Your task to perform on an android device: Go to calendar. Show me events next week Image 0: 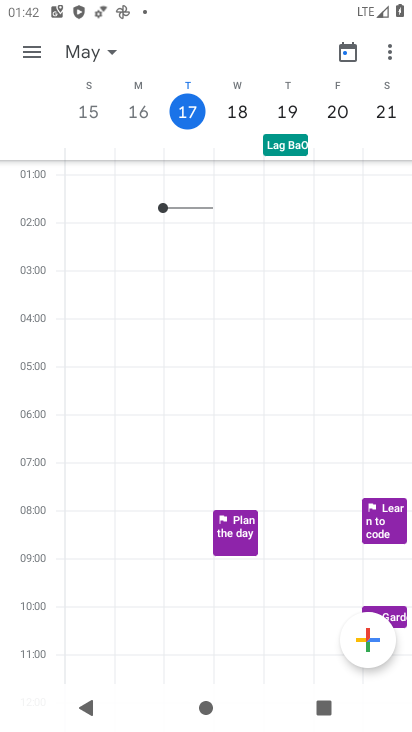
Step 0: click (34, 52)
Your task to perform on an android device: Go to calendar. Show me events next week Image 1: 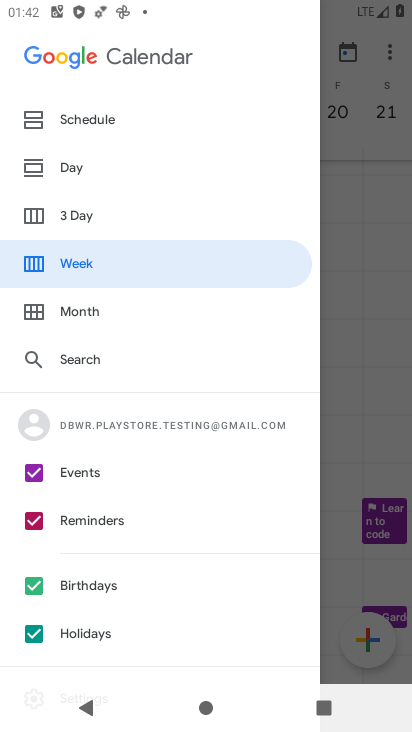
Step 1: click (99, 124)
Your task to perform on an android device: Go to calendar. Show me events next week Image 2: 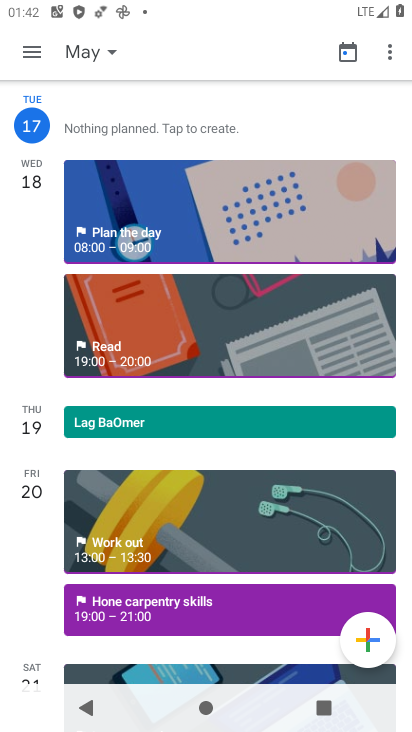
Step 2: task complete